Your task to perform on an android device: turn on showing notifications on the lock screen Image 0: 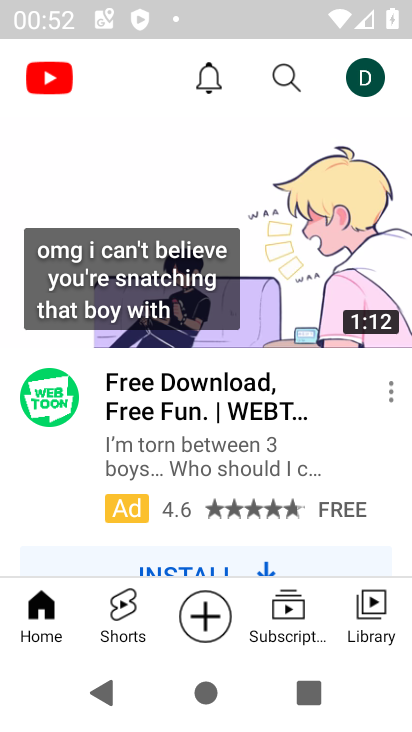
Step 0: press home button
Your task to perform on an android device: turn on showing notifications on the lock screen Image 1: 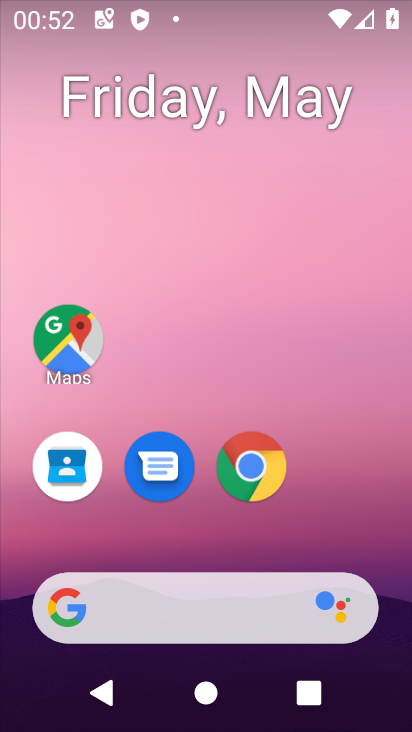
Step 1: drag from (213, 536) to (127, 7)
Your task to perform on an android device: turn on showing notifications on the lock screen Image 2: 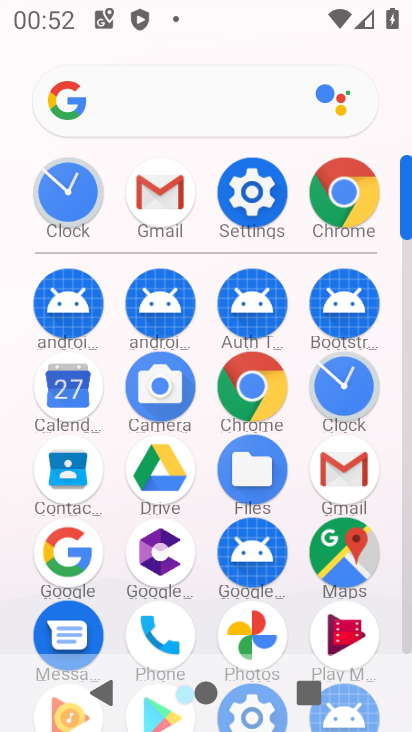
Step 2: click (245, 200)
Your task to perform on an android device: turn on showing notifications on the lock screen Image 3: 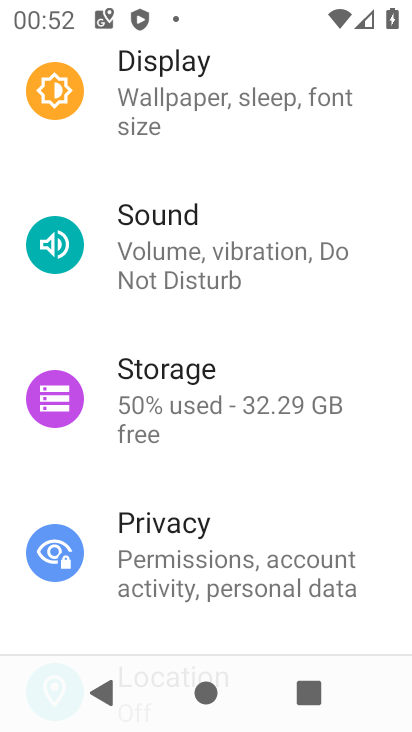
Step 3: drag from (191, 488) to (190, 195)
Your task to perform on an android device: turn on showing notifications on the lock screen Image 4: 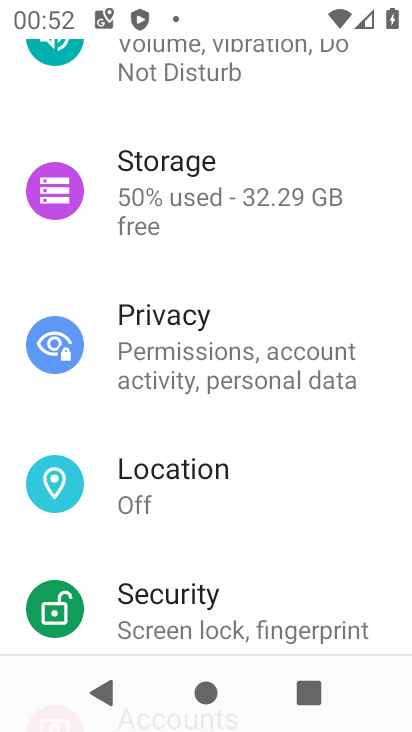
Step 4: drag from (172, 323) to (194, 702)
Your task to perform on an android device: turn on showing notifications on the lock screen Image 5: 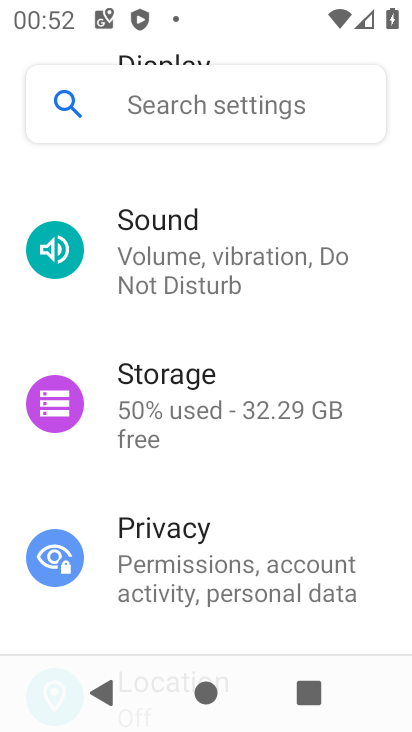
Step 5: drag from (166, 291) to (193, 666)
Your task to perform on an android device: turn on showing notifications on the lock screen Image 6: 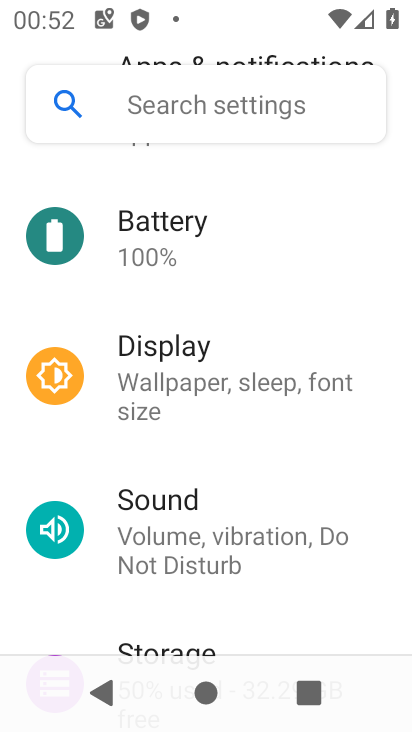
Step 6: drag from (206, 250) to (200, 644)
Your task to perform on an android device: turn on showing notifications on the lock screen Image 7: 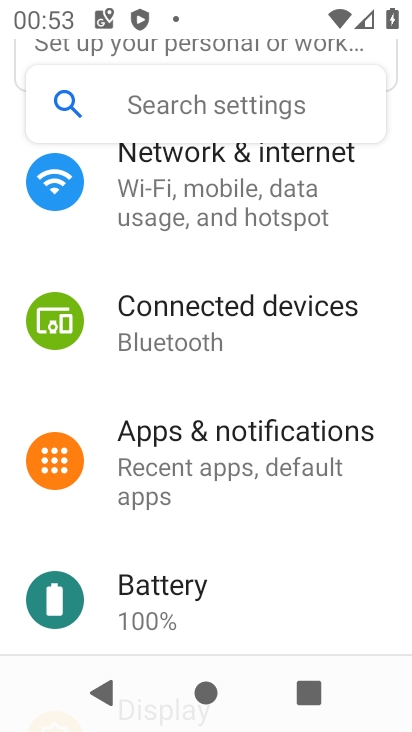
Step 7: click (234, 473)
Your task to perform on an android device: turn on showing notifications on the lock screen Image 8: 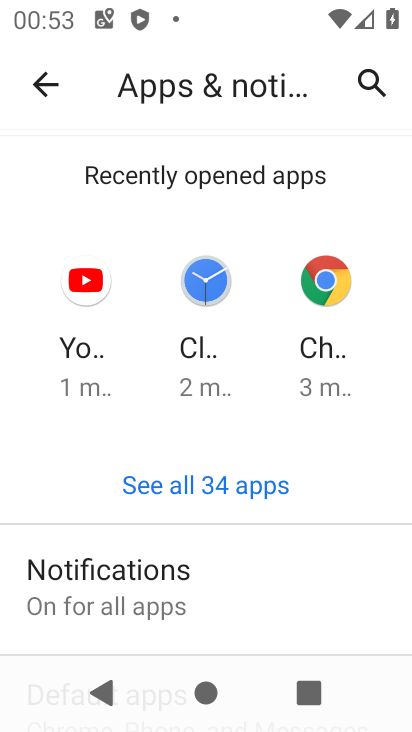
Step 8: click (149, 596)
Your task to perform on an android device: turn on showing notifications on the lock screen Image 9: 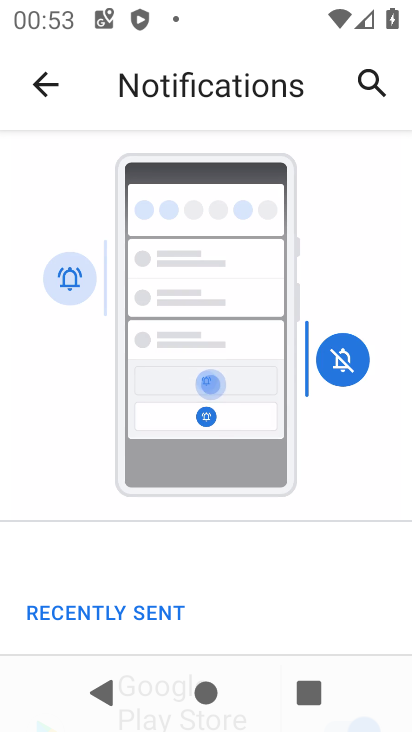
Step 9: drag from (202, 586) to (215, 226)
Your task to perform on an android device: turn on showing notifications on the lock screen Image 10: 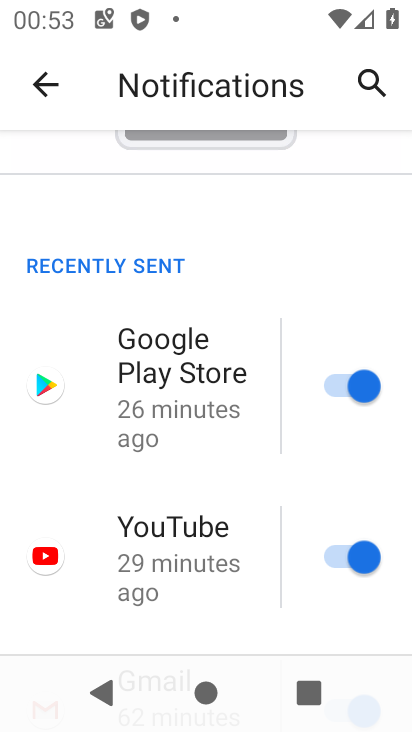
Step 10: drag from (232, 561) to (243, 304)
Your task to perform on an android device: turn on showing notifications on the lock screen Image 11: 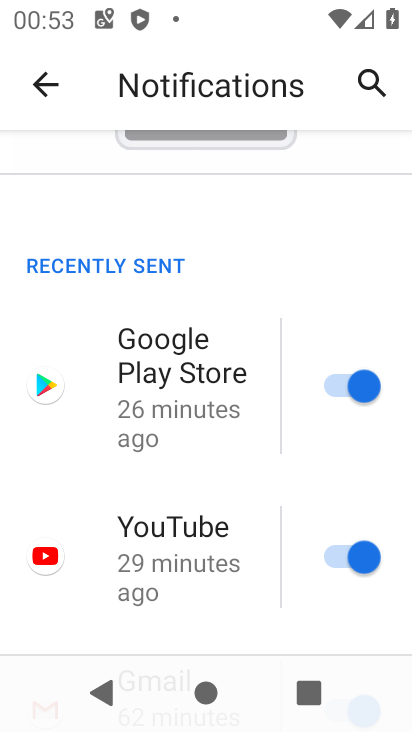
Step 11: drag from (225, 583) to (229, 216)
Your task to perform on an android device: turn on showing notifications on the lock screen Image 12: 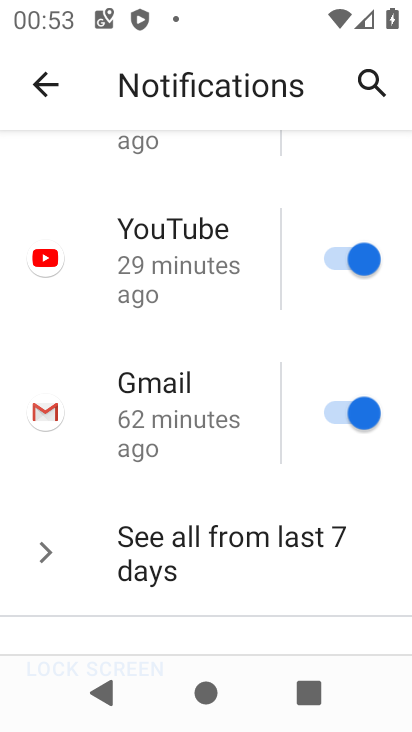
Step 12: drag from (220, 561) to (220, 173)
Your task to perform on an android device: turn on showing notifications on the lock screen Image 13: 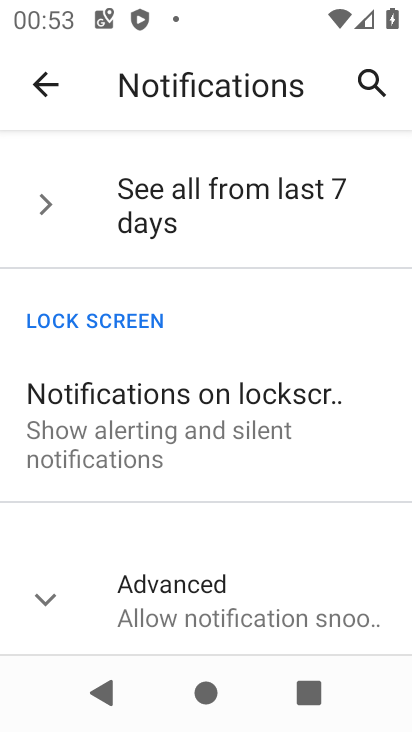
Step 13: click (191, 614)
Your task to perform on an android device: turn on showing notifications on the lock screen Image 14: 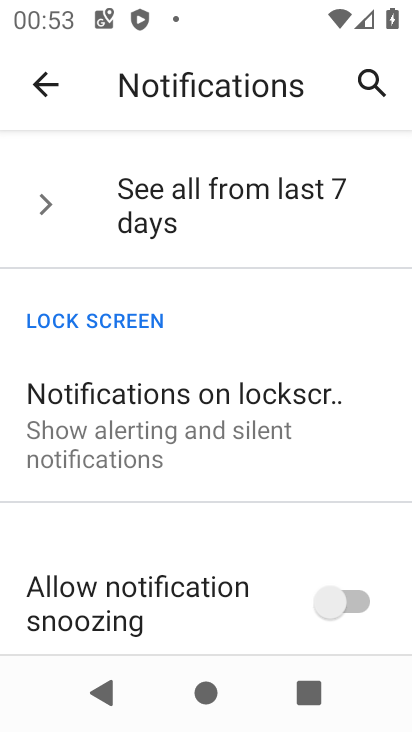
Step 14: click (222, 421)
Your task to perform on an android device: turn on showing notifications on the lock screen Image 15: 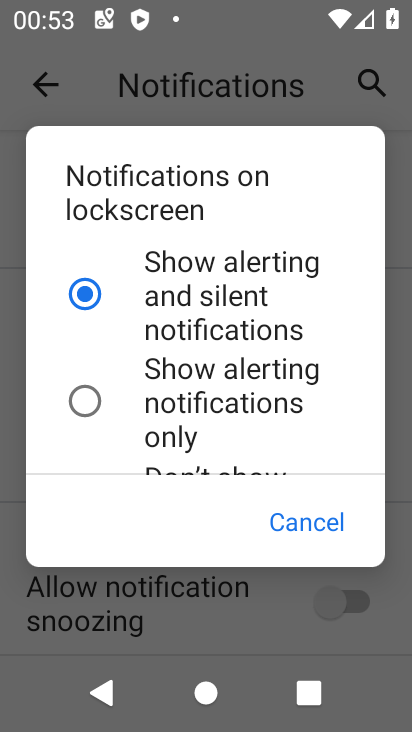
Step 15: task complete